Your task to perform on an android device: turn on sleep mode Image 0: 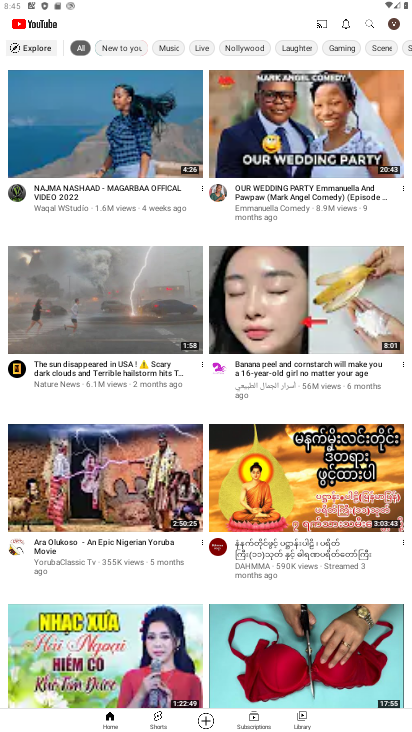
Step 0: press home button
Your task to perform on an android device: turn on sleep mode Image 1: 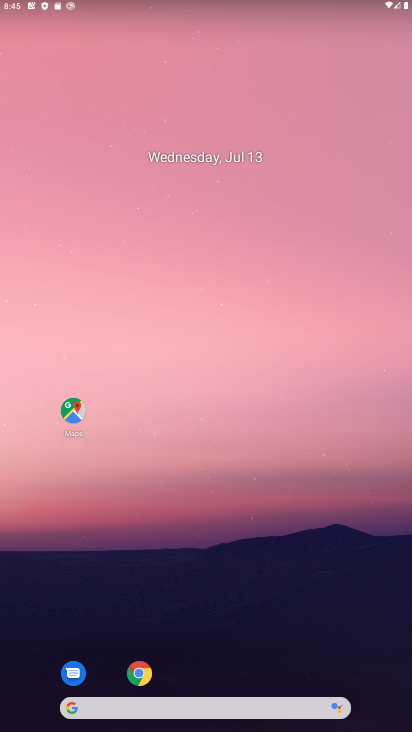
Step 1: drag from (305, 560) to (264, 90)
Your task to perform on an android device: turn on sleep mode Image 2: 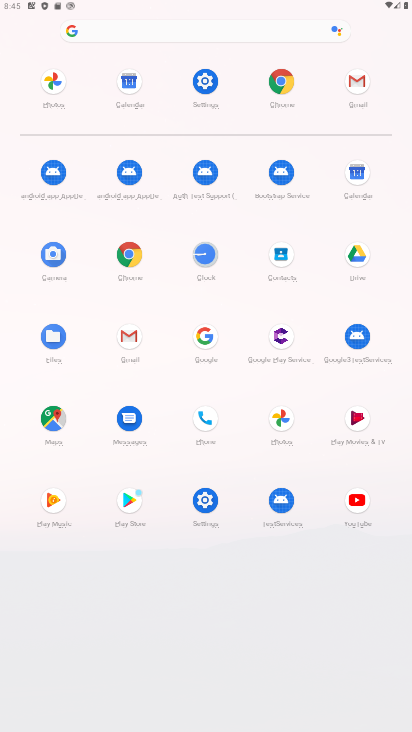
Step 2: click (207, 85)
Your task to perform on an android device: turn on sleep mode Image 3: 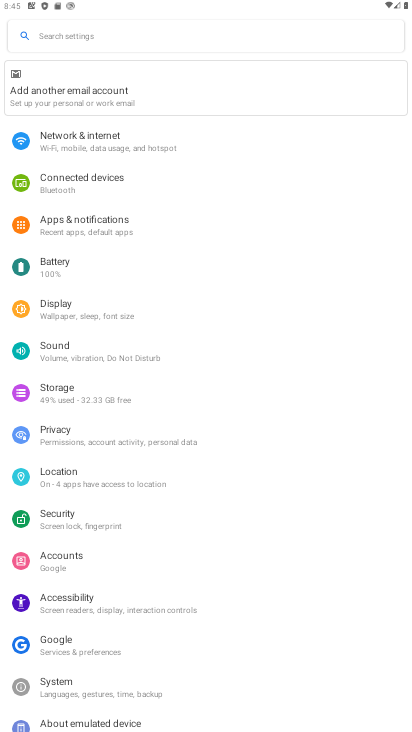
Step 3: click (91, 307)
Your task to perform on an android device: turn on sleep mode Image 4: 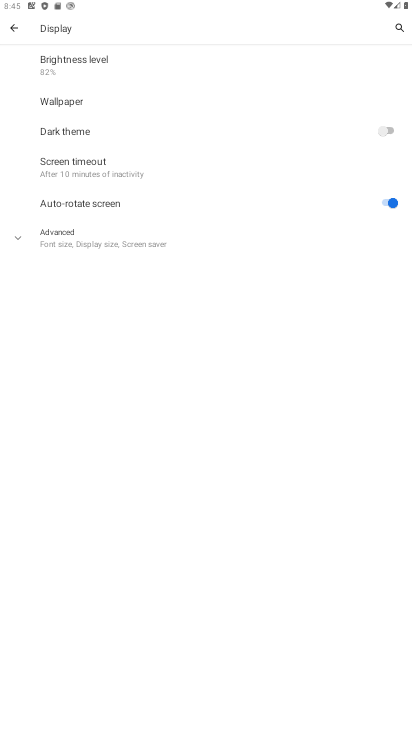
Step 4: click (162, 167)
Your task to perform on an android device: turn on sleep mode Image 5: 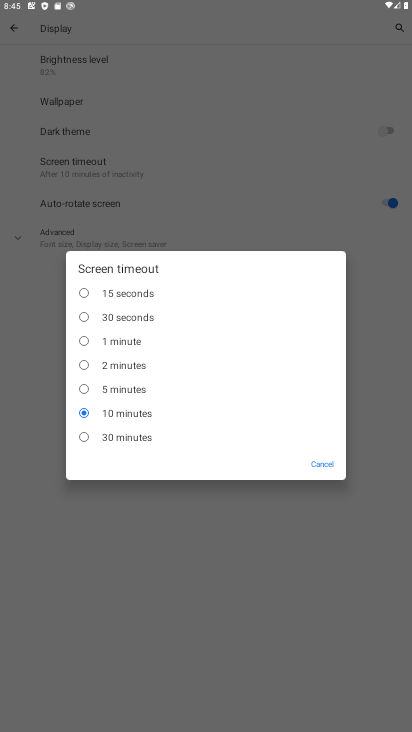
Step 5: task complete